Your task to perform on an android device: Go to calendar. Show me events next week Image 0: 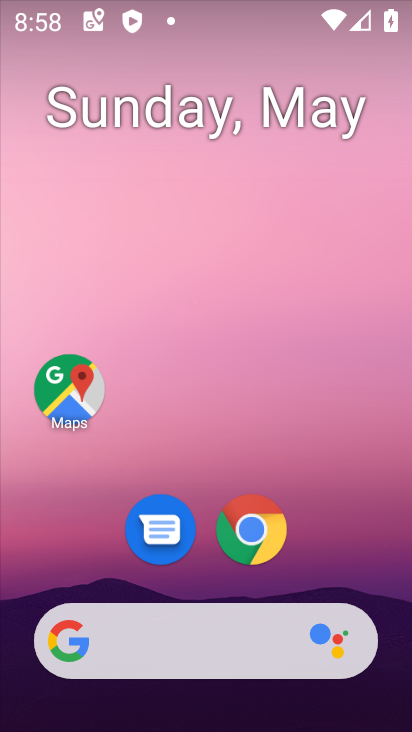
Step 0: drag from (365, 531) to (400, 160)
Your task to perform on an android device: Go to calendar. Show me events next week Image 1: 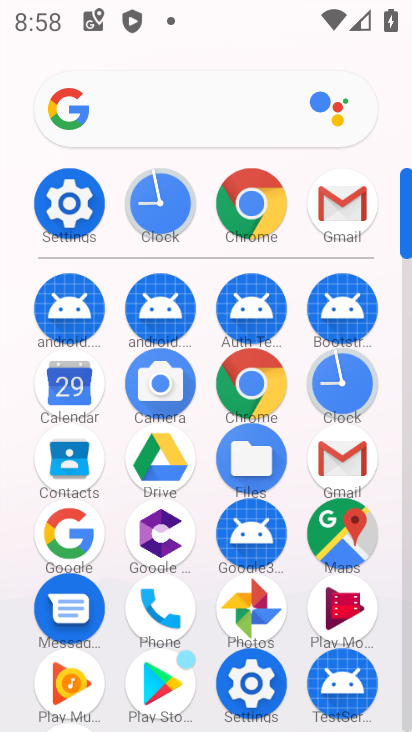
Step 1: click (57, 387)
Your task to perform on an android device: Go to calendar. Show me events next week Image 2: 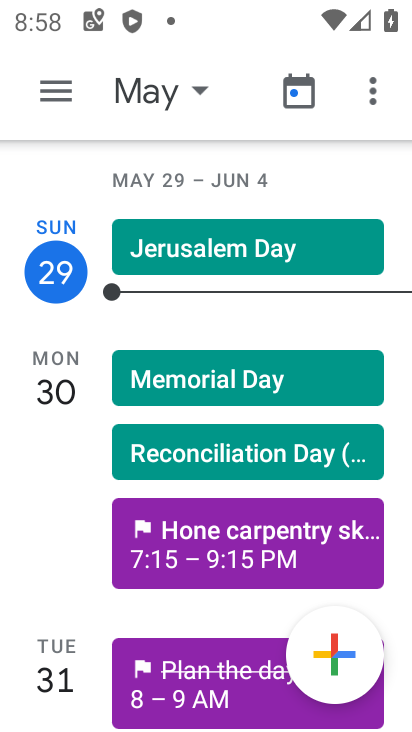
Step 2: task complete